Your task to perform on an android device: Add dell alienware to the cart on amazon, then select checkout. Image 0: 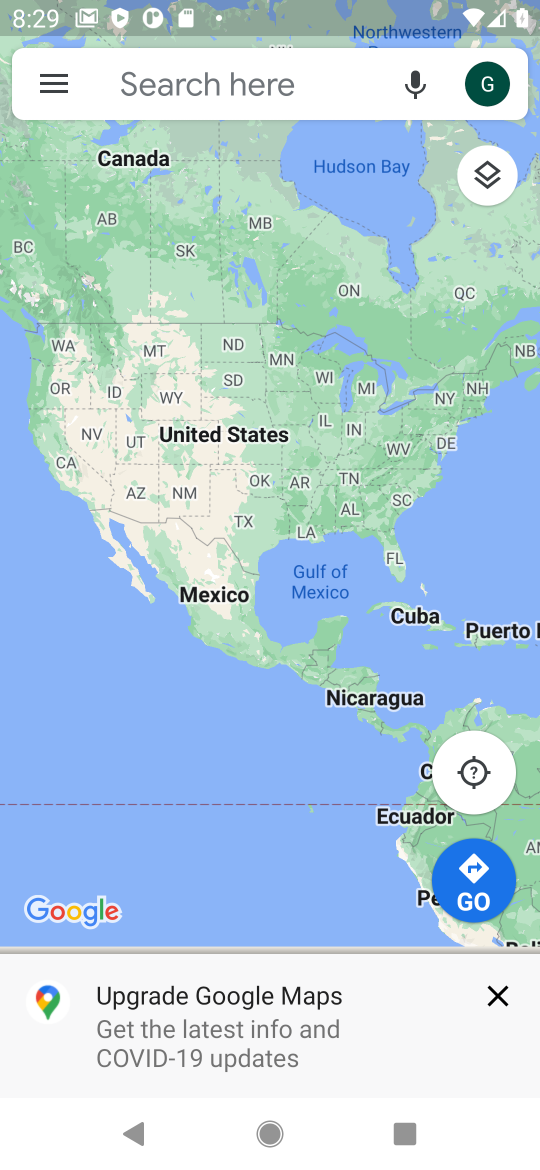
Step 0: press home button
Your task to perform on an android device: Add dell alienware to the cart on amazon, then select checkout. Image 1: 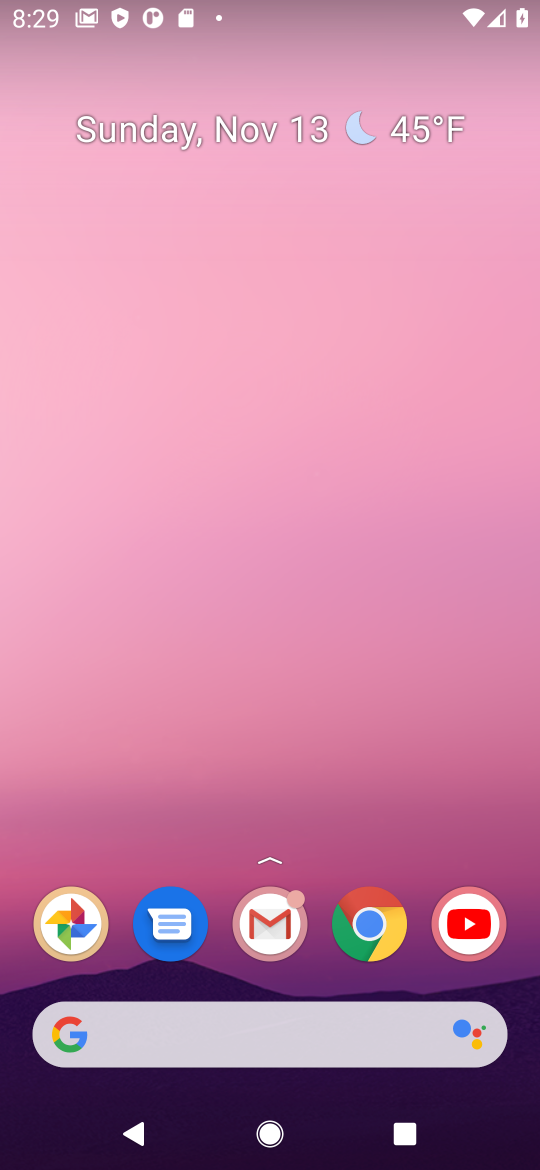
Step 1: click (362, 929)
Your task to perform on an android device: Add dell alienware to the cart on amazon, then select checkout. Image 2: 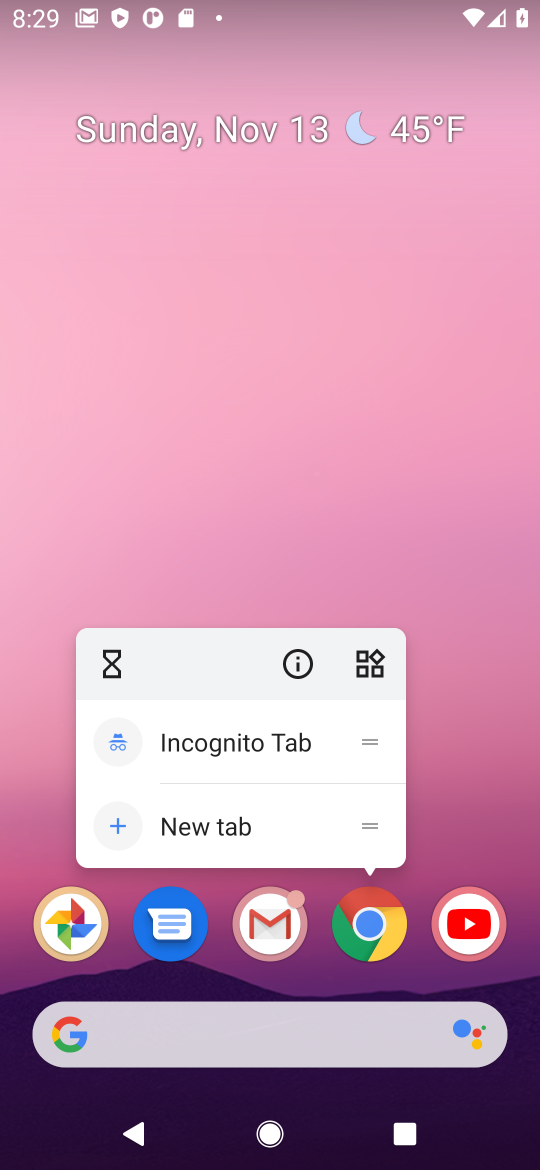
Step 2: click (365, 922)
Your task to perform on an android device: Add dell alienware to the cart on amazon, then select checkout. Image 3: 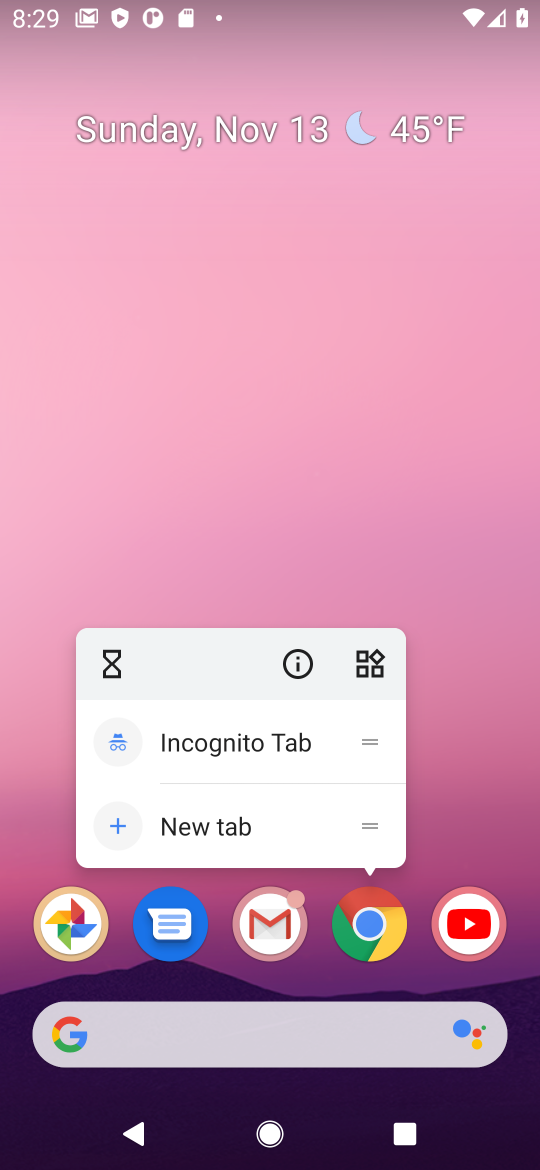
Step 3: click (365, 922)
Your task to perform on an android device: Add dell alienware to the cart on amazon, then select checkout. Image 4: 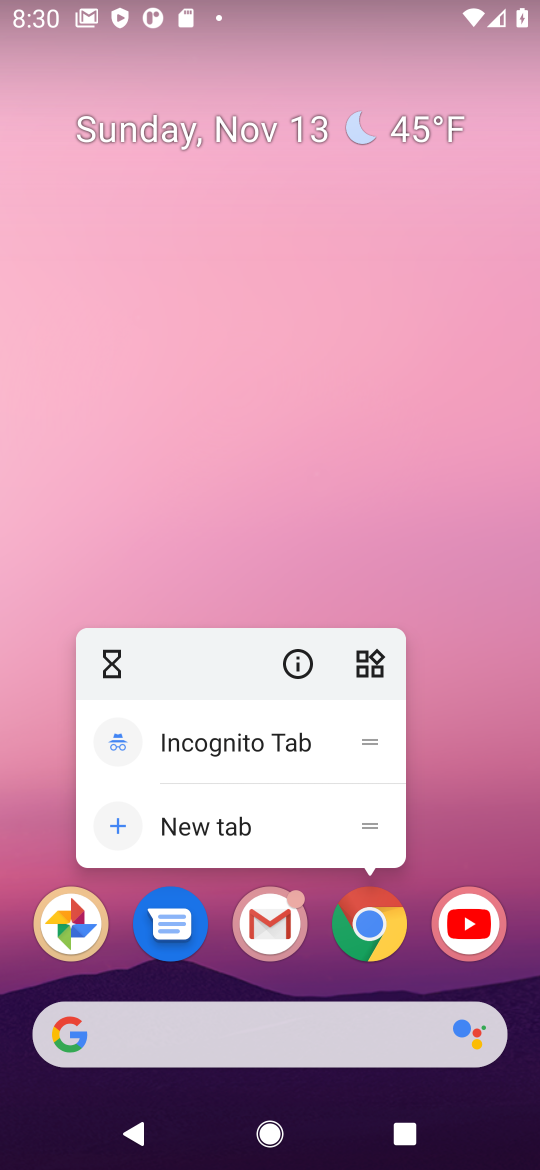
Step 4: click (365, 922)
Your task to perform on an android device: Add dell alienware to the cart on amazon, then select checkout. Image 5: 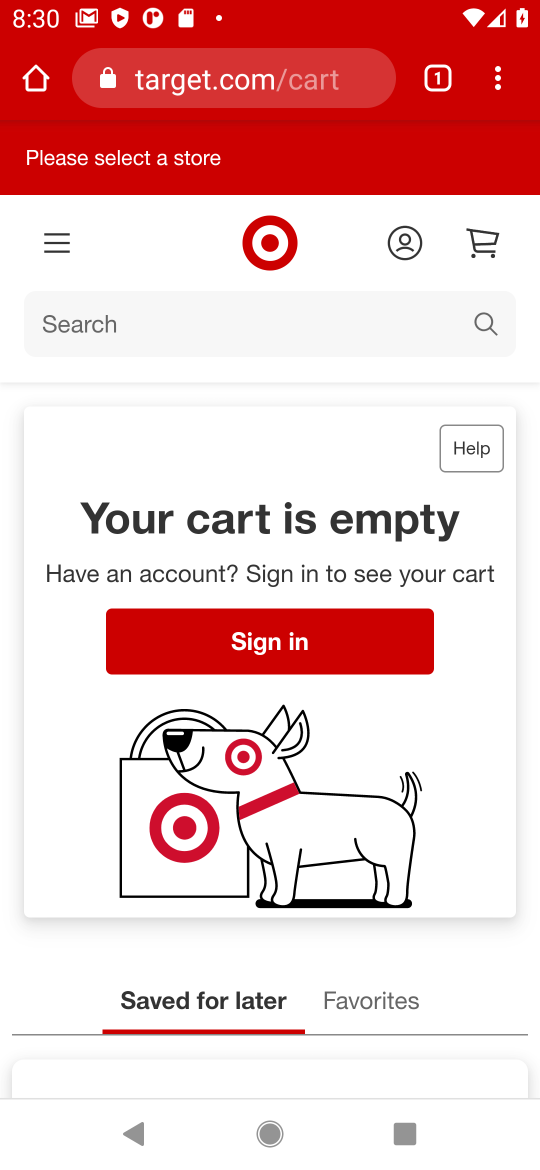
Step 5: click (298, 69)
Your task to perform on an android device: Add dell alienware to the cart on amazon, then select checkout. Image 6: 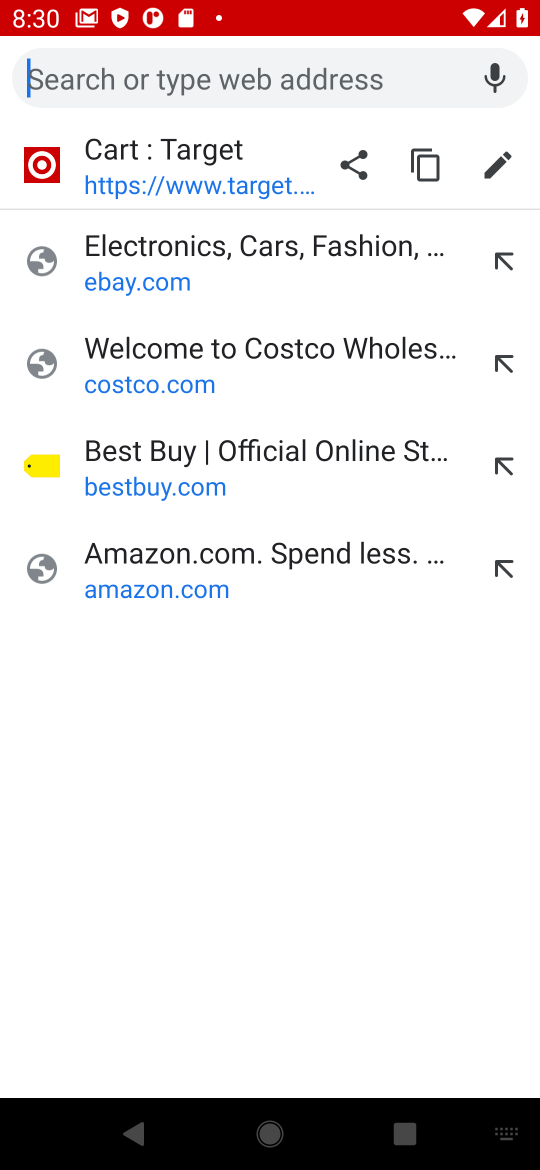
Step 6: click (164, 586)
Your task to perform on an android device: Add dell alienware to the cart on amazon, then select checkout. Image 7: 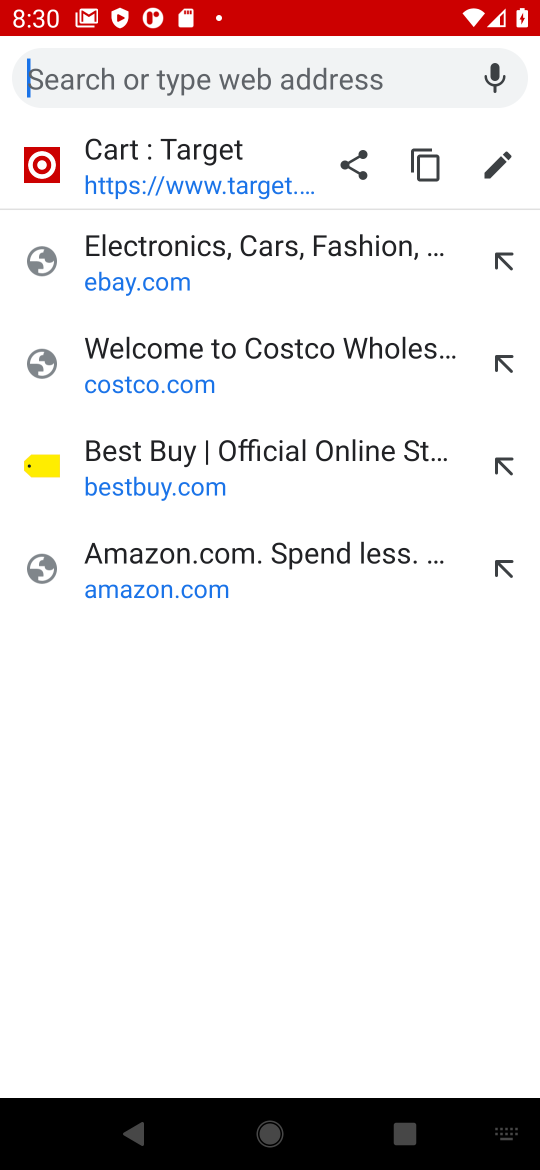
Step 7: click (177, 587)
Your task to perform on an android device: Add dell alienware to the cart on amazon, then select checkout. Image 8: 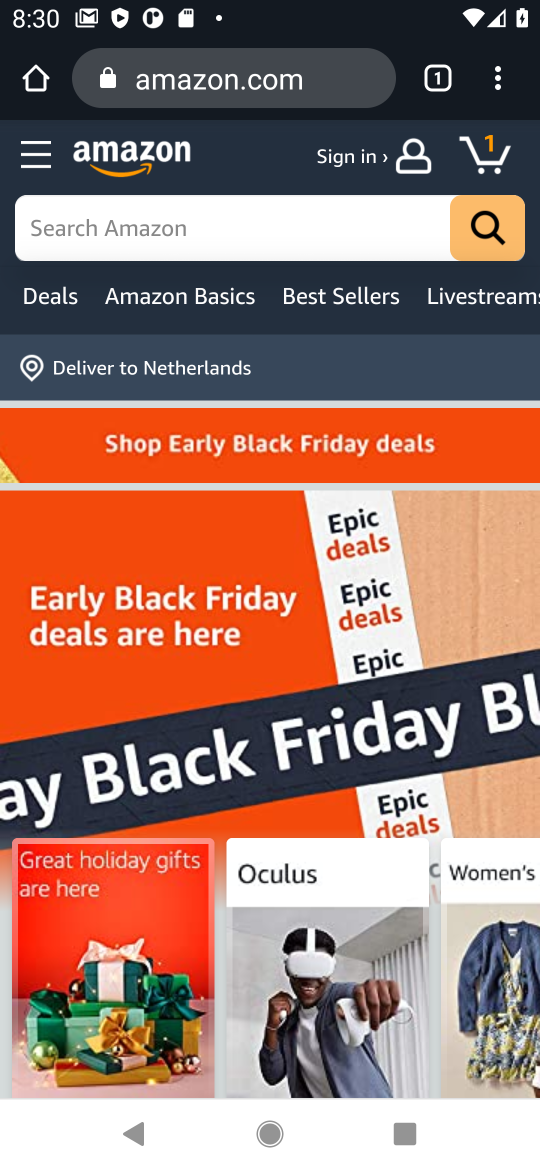
Step 8: click (111, 219)
Your task to perform on an android device: Add dell alienware to the cart on amazon, then select checkout. Image 9: 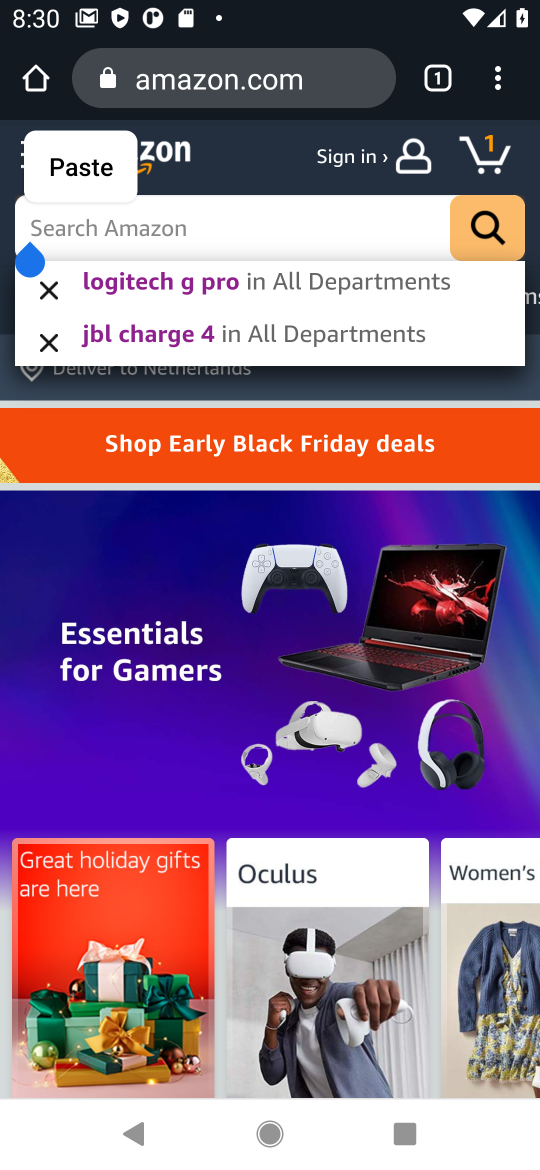
Step 9: type "dell alienware"
Your task to perform on an android device: Add dell alienware to the cart on amazon, then select checkout. Image 10: 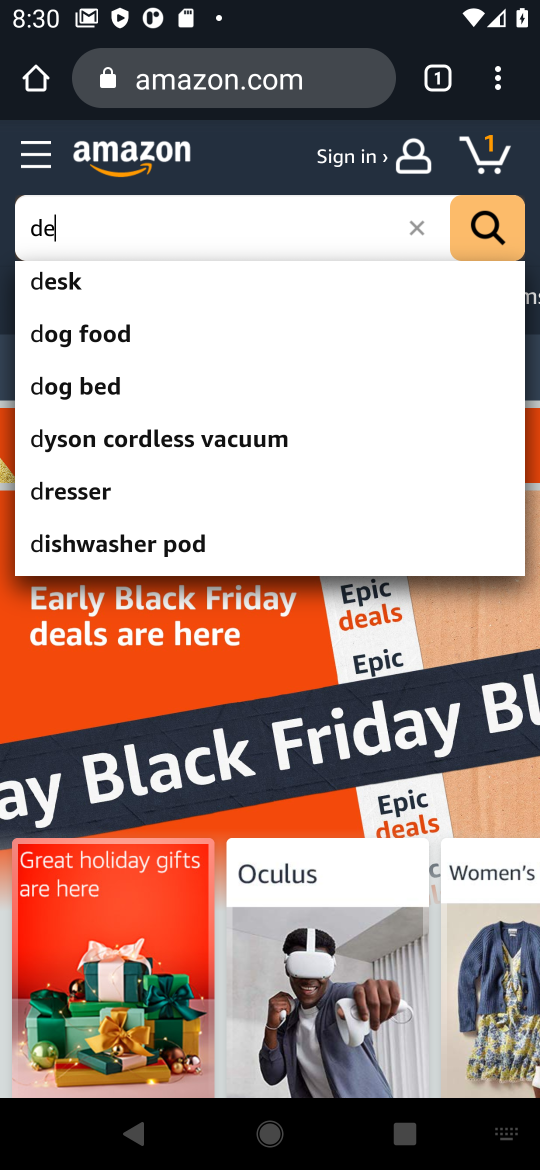
Step 10: press enter
Your task to perform on an android device: Add dell alienware to the cart on amazon, then select checkout. Image 11: 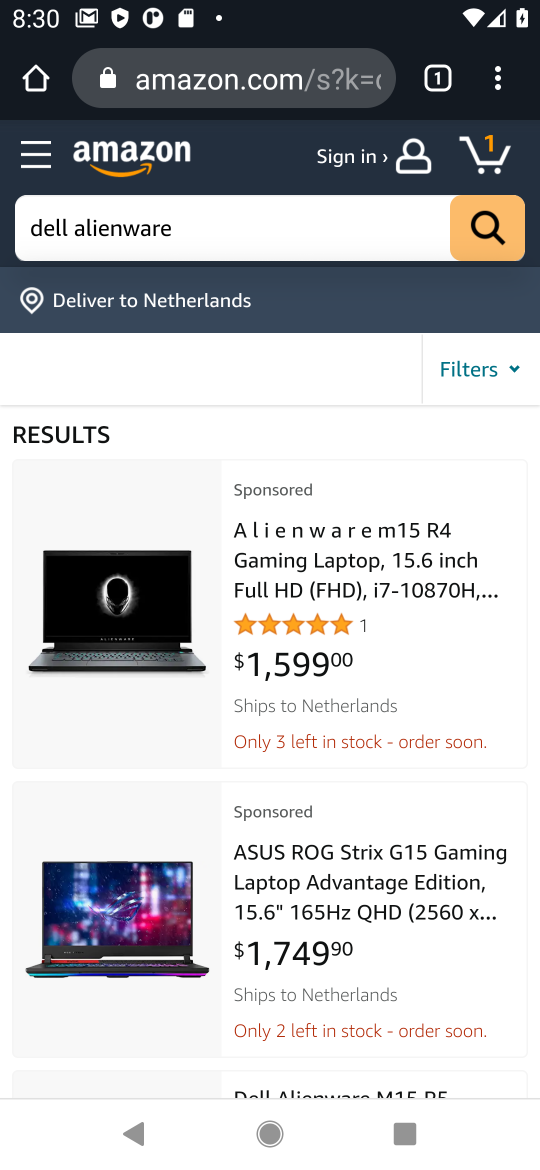
Step 11: drag from (308, 1061) to (377, 703)
Your task to perform on an android device: Add dell alienware to the cart on amazon, then select checkout. Image 12: 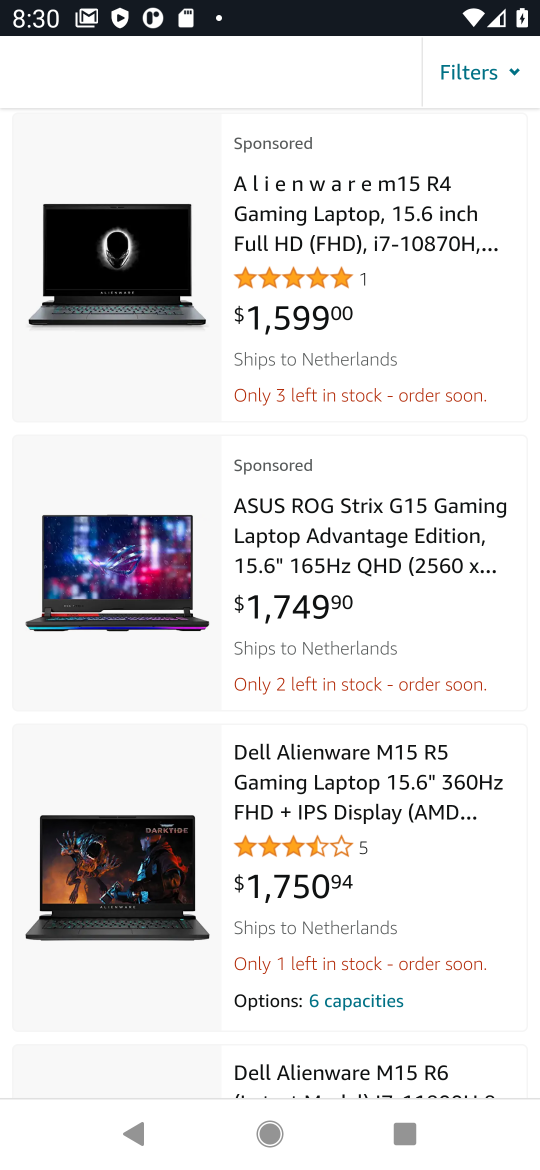
Step 12: click (418, 803)
Your task to perform on an android device: Add dell alienware to the cart on amazon, then select checkout. Image 13: 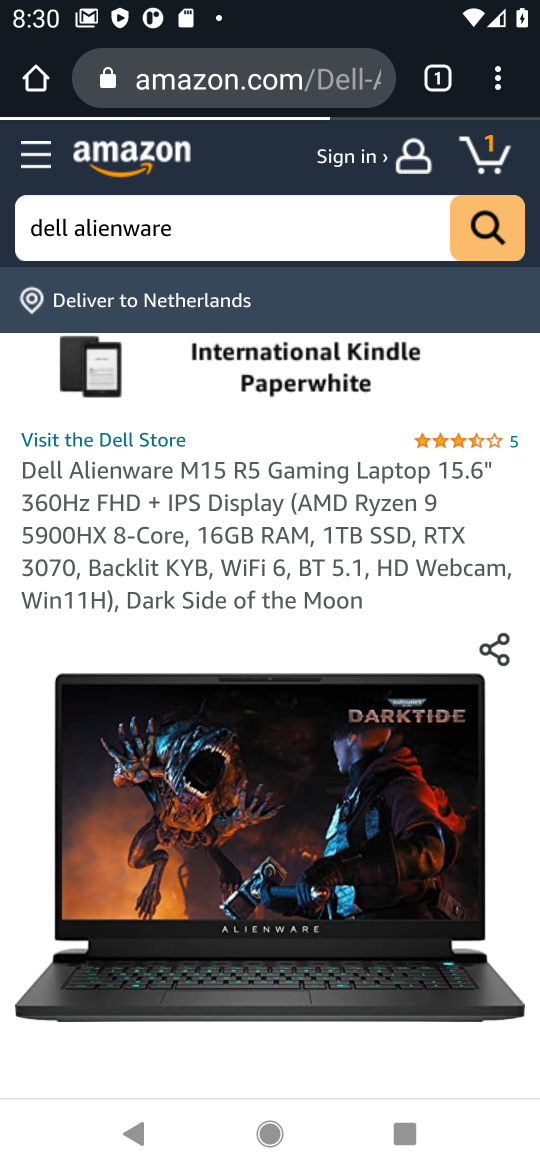
Step 13: drag from (239, 969) to (450, 203)
Your task to perform on an android device: Add dell alienware to the cart on amazon, then select checkout. Image 14: 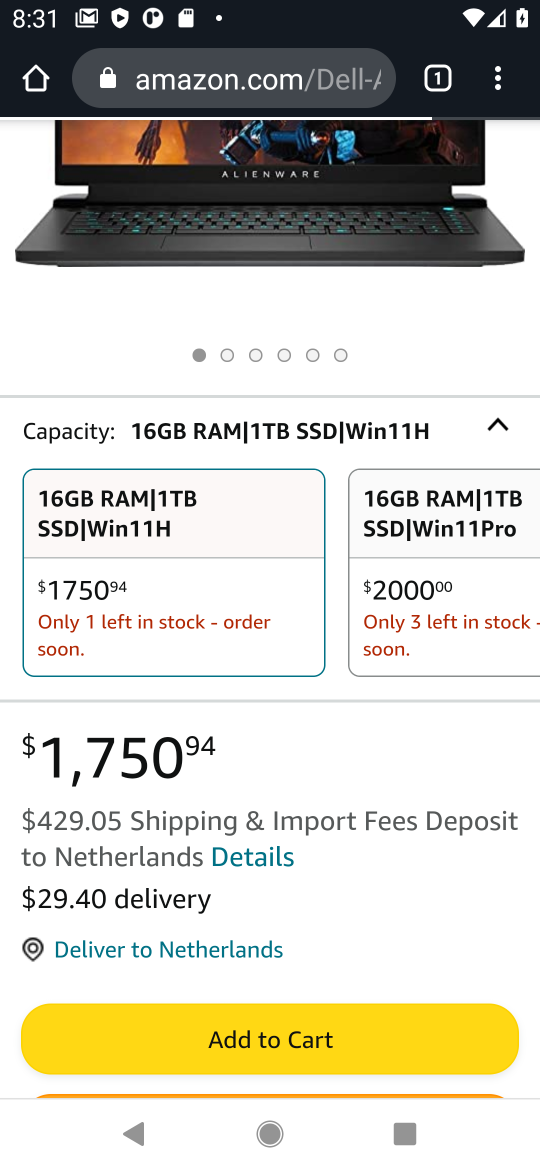
Step 14: click (281, 1038)
Your task to perform on an android device: Add dell alienware to the cart on amazon, then select checkout. Image 15: 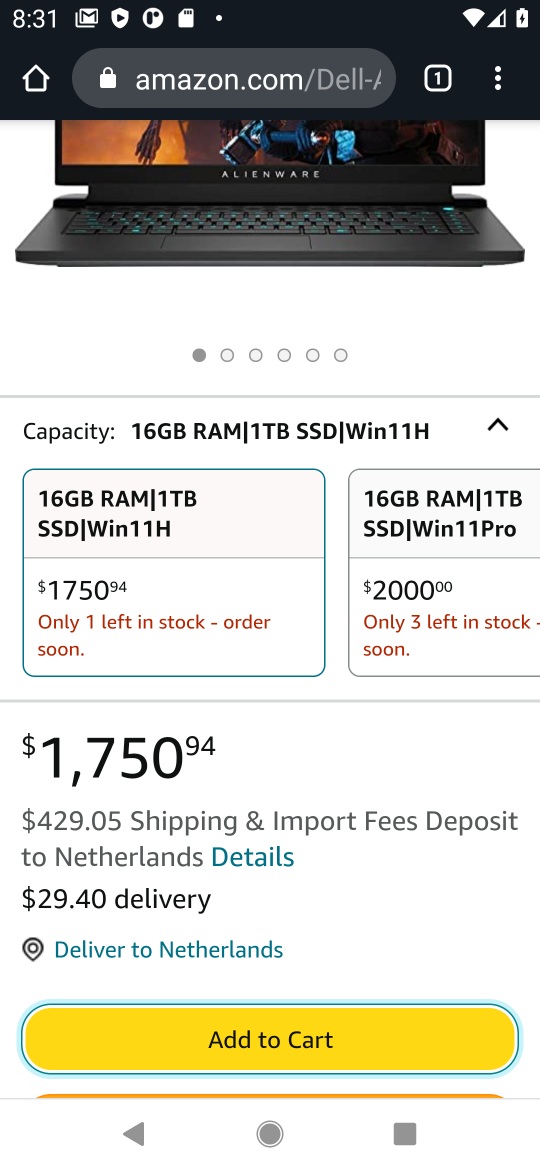
Step 15: click (276, 1044)
Your task to perform on an android device: Add dell alienware to the cart on amazon, then select checkout. Image 16: 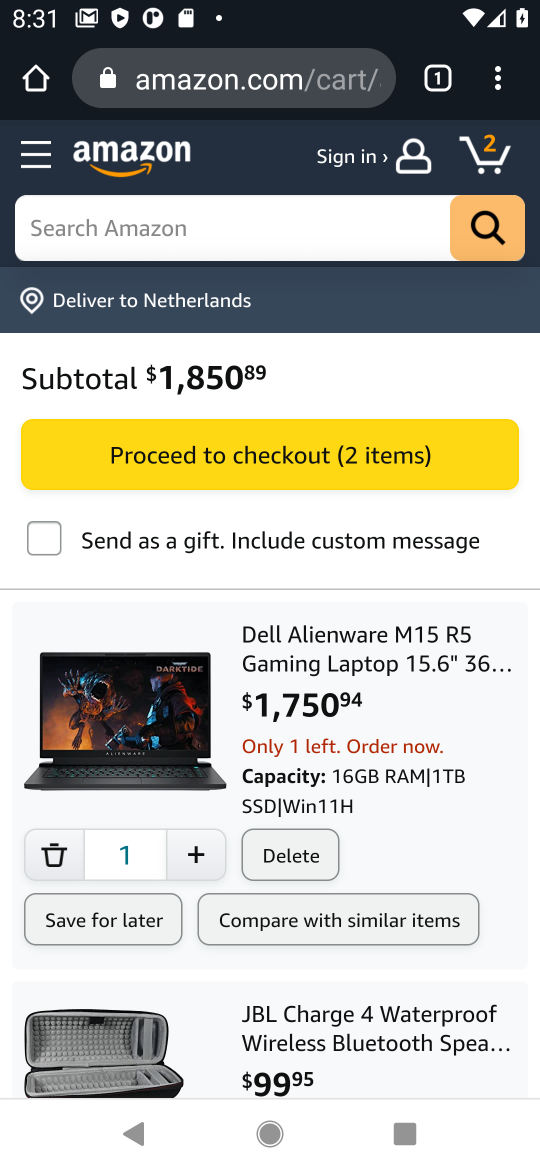
Step 16: drag from (252, 1006) to (377, 549)
Your task to perform on an android device: Add dell alienware to the cart on amazon, then select checkout. Image 17: 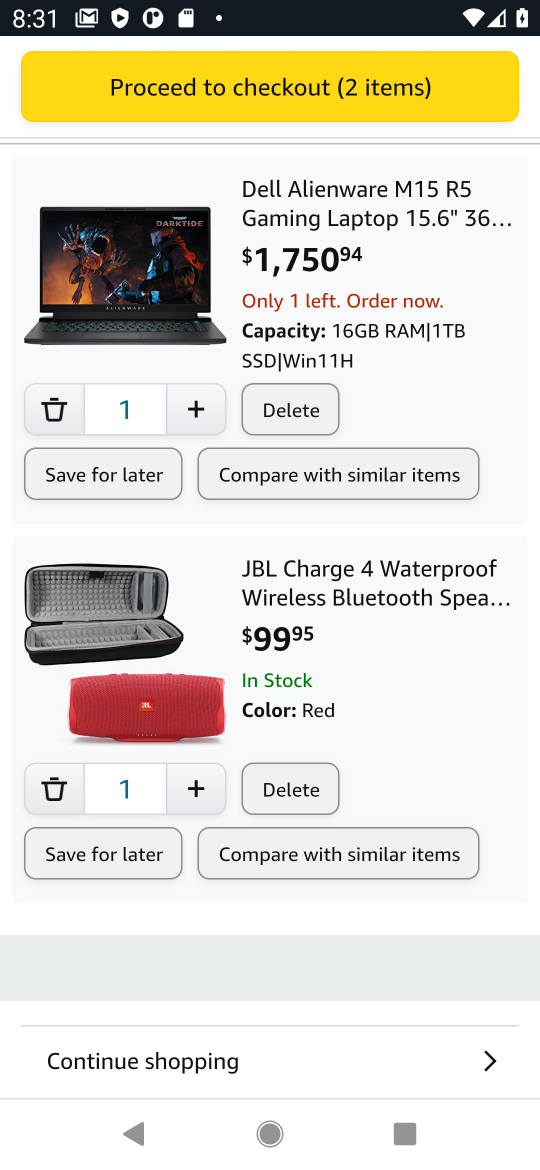
Step 17: click (297, 788)
Your task to perform on an android device: Add dell alienware to the cart on amazon, then select checkout. Image 18: 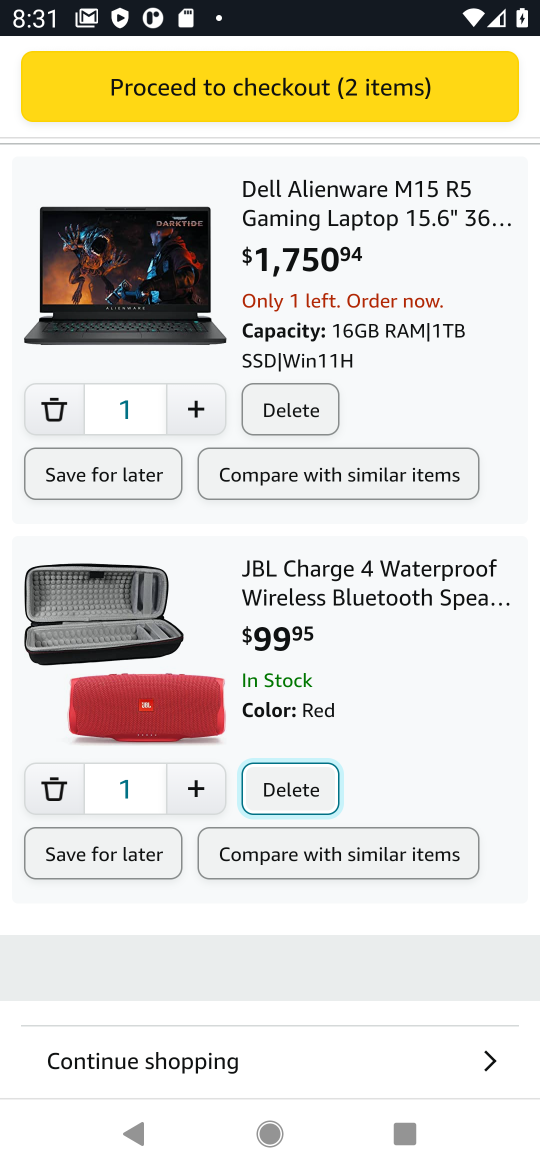
Step 18: click (297, 785)
Your task to perform on an android device: Add dell alienware to the cart on amazon, then select checkout. Image 19: 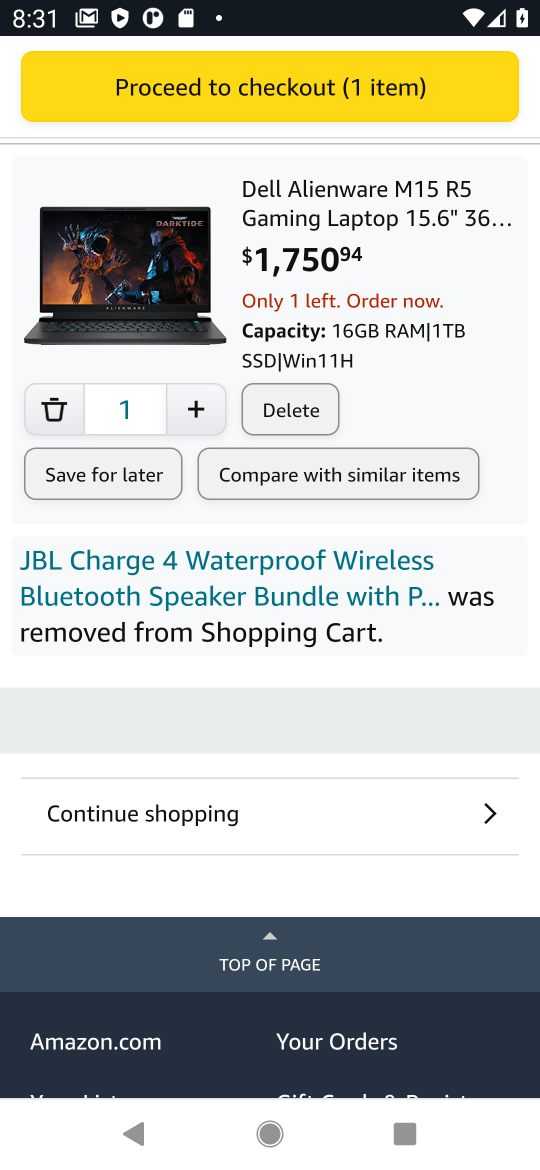
Step 19: drag from (396, 325) to (357, 807)
Your task to perform on an android device: Add dell alienware to the cart on amazon, then select checkout. Image 20: 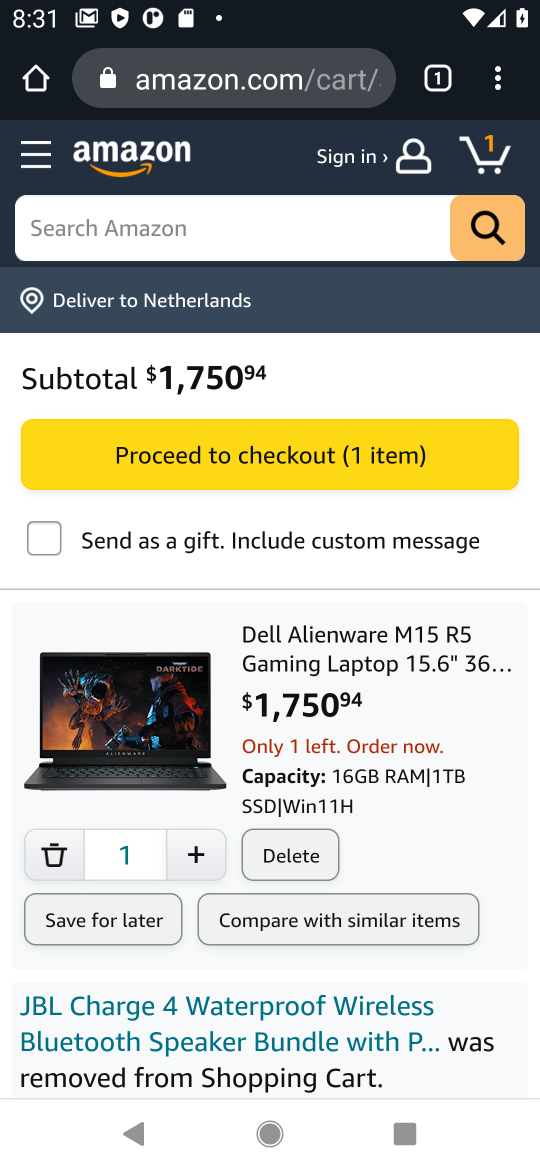
Step 20: click (340, 454)
Your task to perform on an android device: Add dell alienware to the cart on amazon, then select checkout. Image 21: 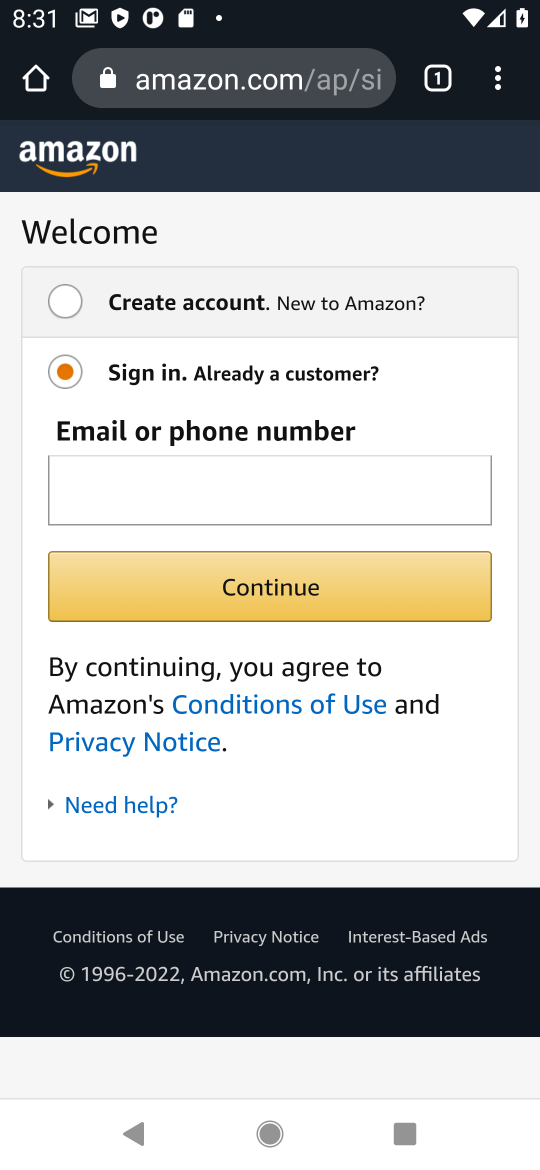
Step 21: task complete